Your task to perform on an android device: toggle javascript in the chrome app Image 0: 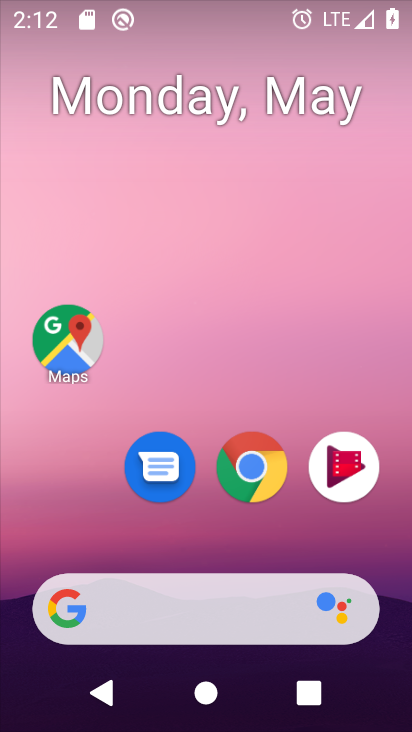
Step 0: drag from (285, 513) to (292, 225)
Your task to perform on an android device: toggle javascript in the chrome app Image 1: 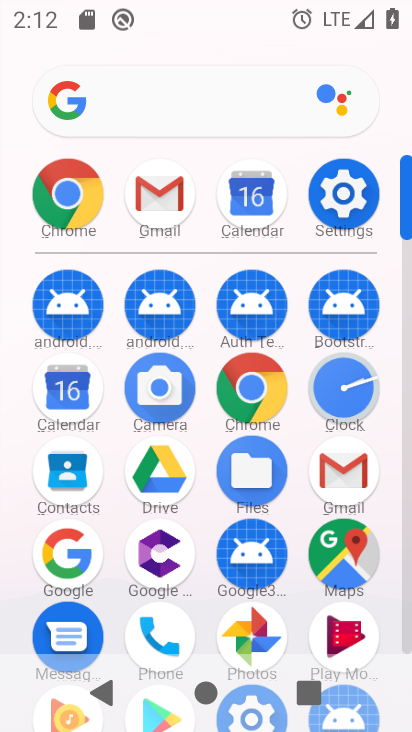
Step 1: click (250, 383)
Your task to perform on an android device: toggle javascript in the chrome app Image 2: 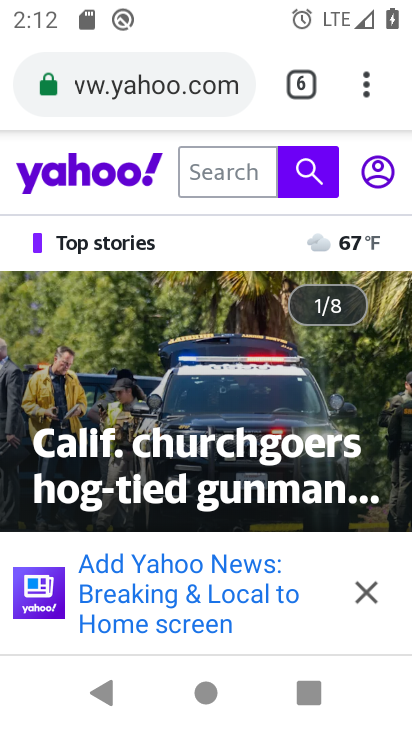
Step 2: click (353, 77)
Your task to perform on an android device: toggle javascript in the chrome app Image 3: 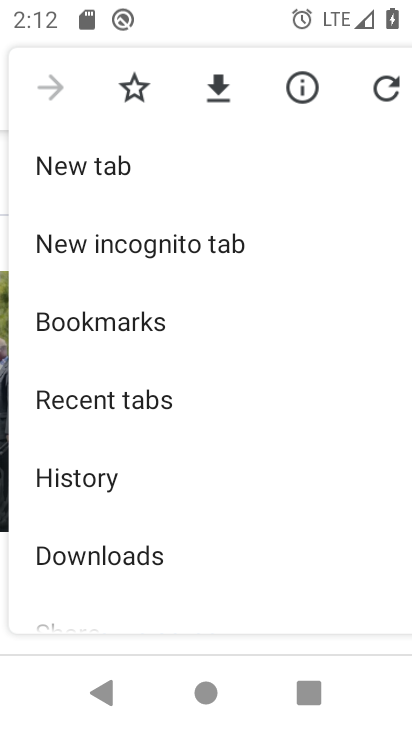
Step 3: drag from (192, 529) to (265, 121)
Your task to perform on an android device: toggle javascript in the chrome app Image 4: 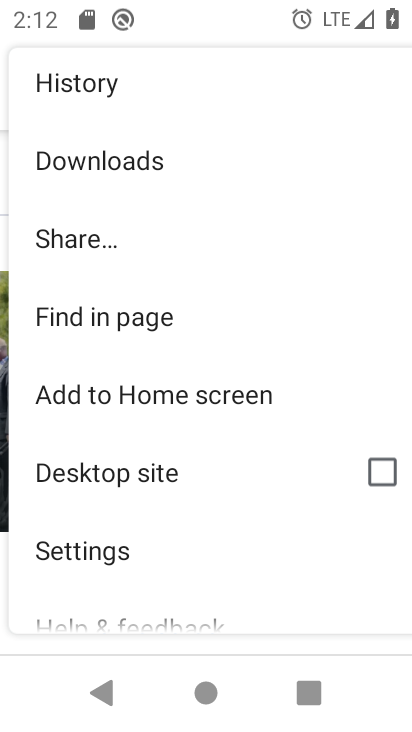
Step 4: drag from (142, 580) to (182, 393)
Your task to perform on an android device: toggle javascript in the chrome app Image 5: 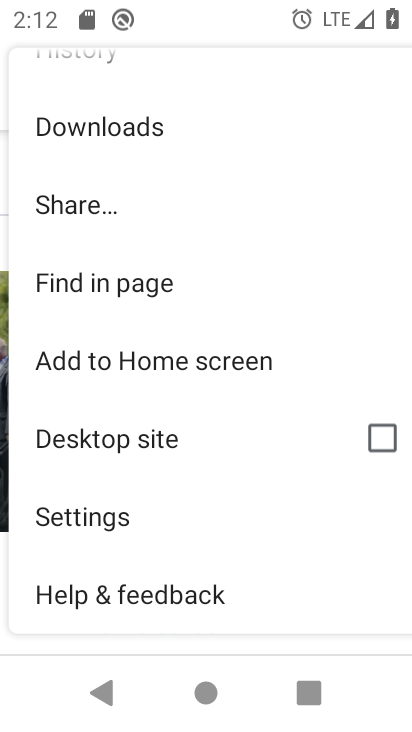
Step 5: click (110, 512)
Your task to perform on an android device: toggle javascript in the chrome app Image 6: 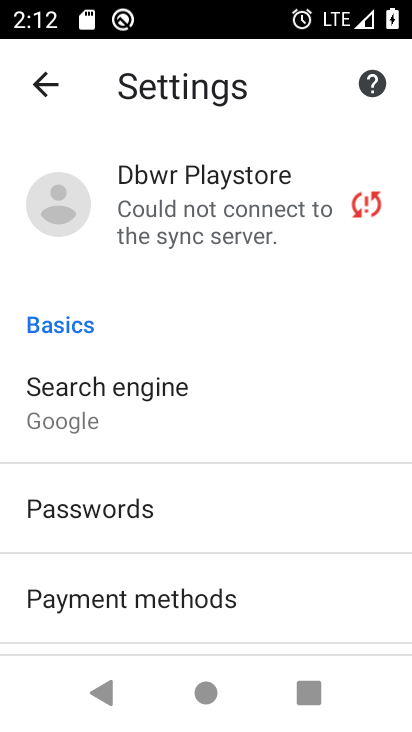
Step 6: drag from (233, 626) to (315, 264)
Your task to perform on an android device: toggle javascript in the chrome app Image 7: 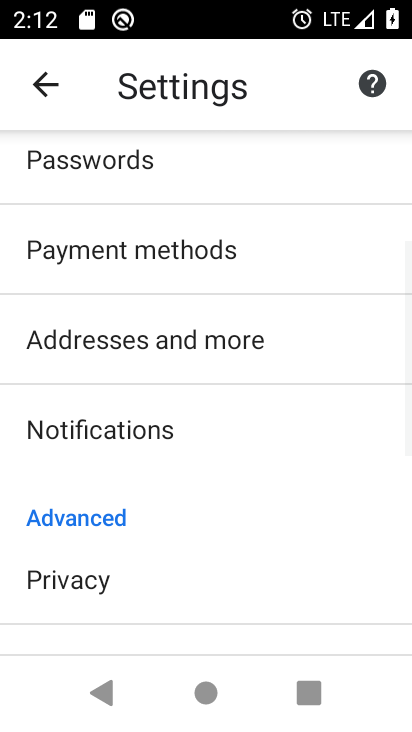
Step 7: drag from (233, 544) to (317, 192)
Your task to perform on an android device: toggle javascript in the chrome app Image 8: 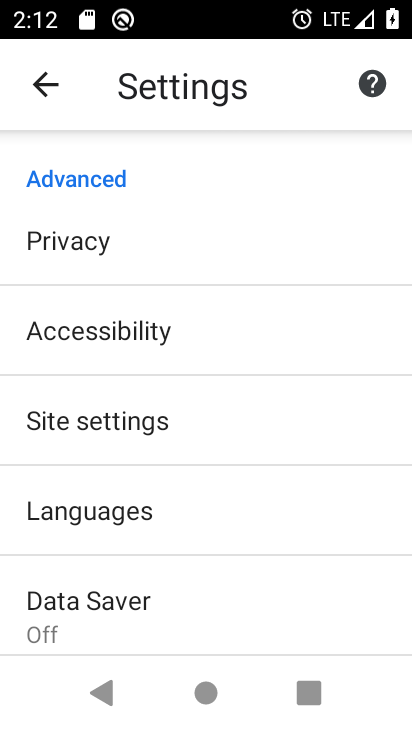
Step 8: click (156, 418)
Your task to perform on an android device: toggle javascript in the chrome app Image 9: 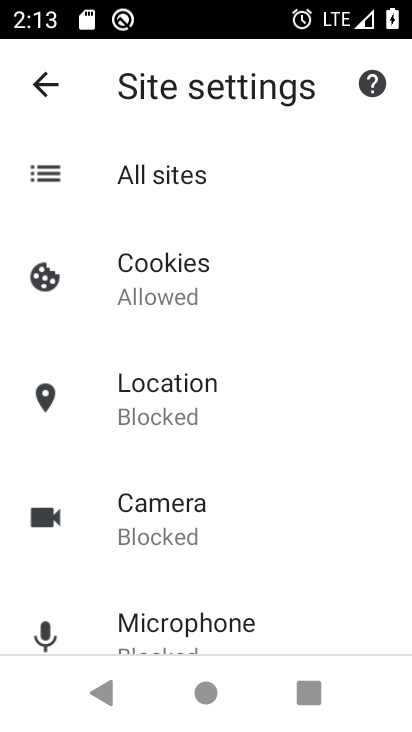
Step 9: drag from (188, 589) to (280, 191)
Your task to perform on an android device: toggle javascript in the chrome app Image 10: 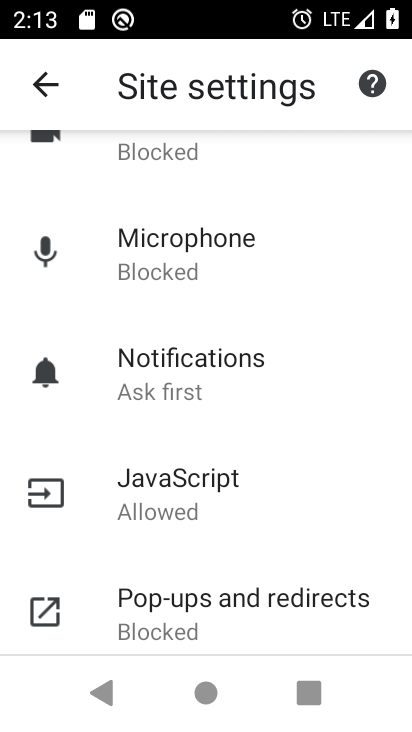
Step 10: click (172, 486)
Your task to perform on an android device: toggle javascript in the chrome app Image 11: 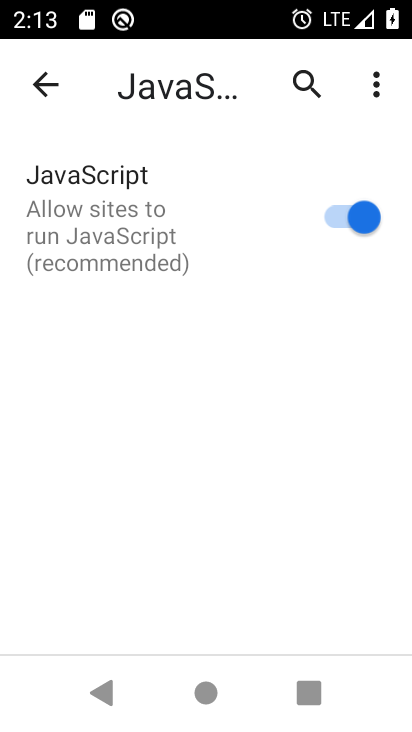
Step 11: click (346, 204)
Your task to perform on an android device: toggle javascript in the chrome app Image 12: 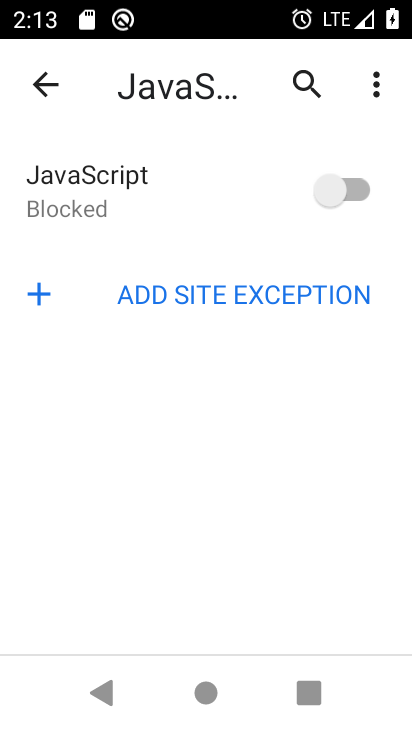
Step 12: task complete